Your task to perform on an android device: Find coffee shops on Maps Image 0: 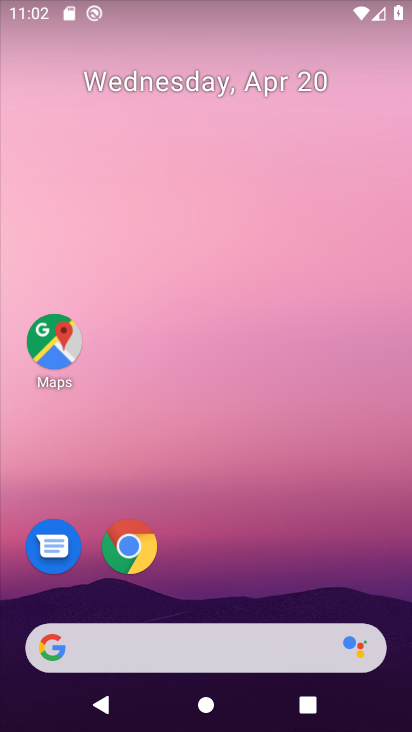
Step 0: drag from (158, 629) to (228, 188)
Your task to perform on an android device: Find coffee shops on Maps Image 1: 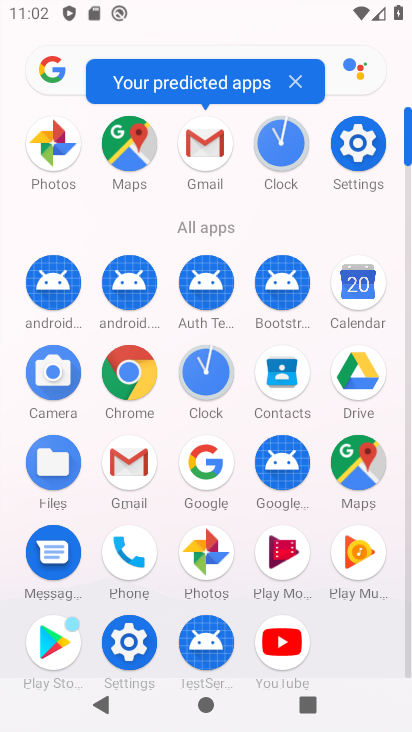
Step 1: click (356, 466)
Your task to perform on an android device: Find coffee shops on Maps Image 2: 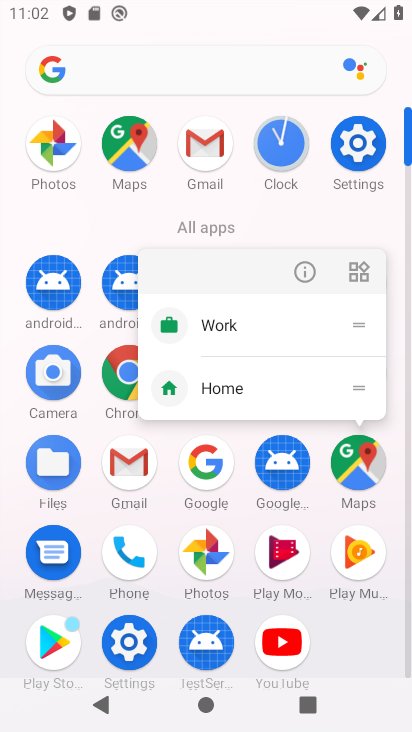
Step 2: click (356, 475)
Your task to perform on an android device: Find coffee shops on Maps Image 3: 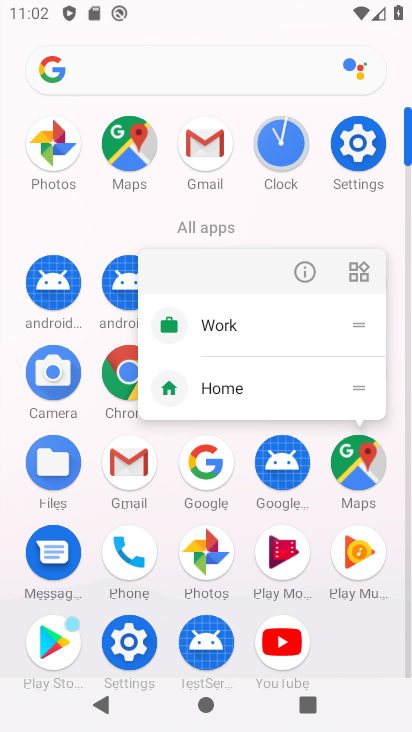
Step 3: click (356, 475)
Your task to perform on an android device: Find coffee shops on Maps Image 4: 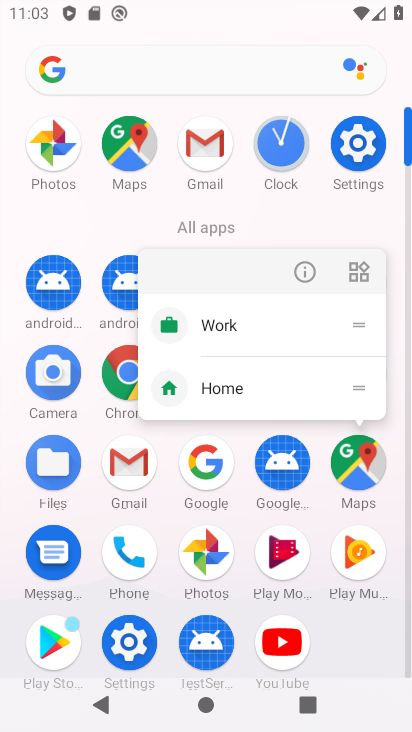
Step 4: click (356, 464)
Your task to perform on an android device: Find coffee shops on Maps Image 5: 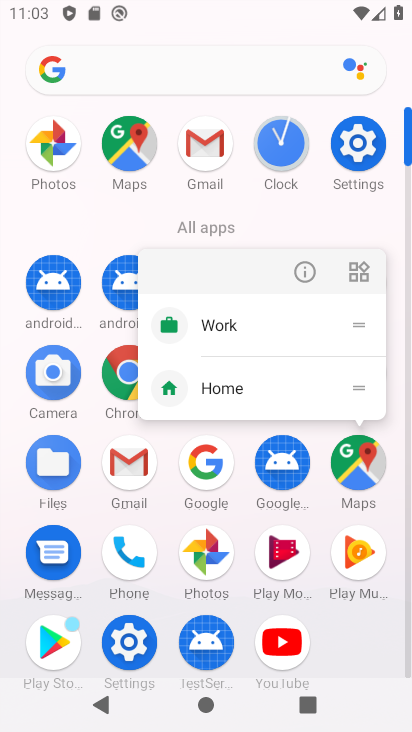
Step 5: click (358, 476)
Your task to perform on an android device: Find coffee shops on Maps Image 6: 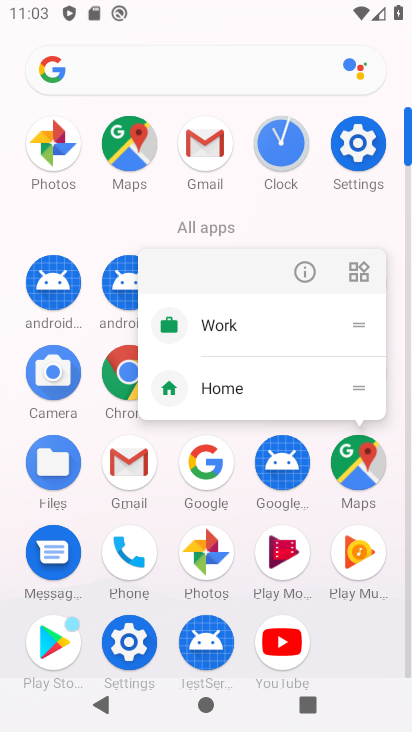
Step 6: click (357, 464)
Your task to perform on an android device: Find coffee shops on Maps Image 7: 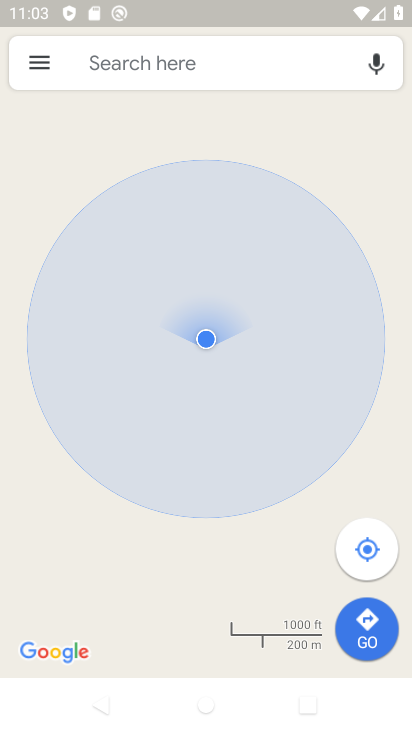
Step 7: click (148, 69)
Your task to perform on an android device: Find coffee shops on Maps Image 8: 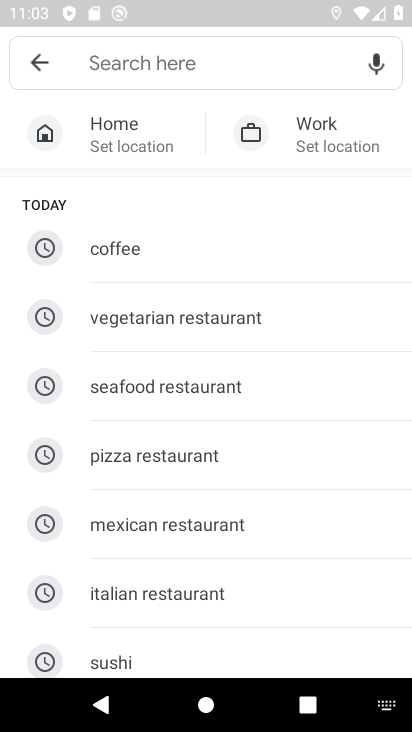
Step 8: click (126, 249)
Your task to perform on an android device: Find coffee shops on Maps Image 9: 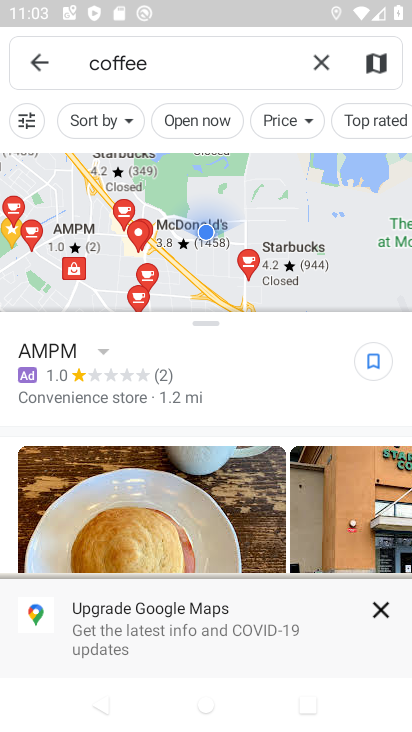
Step 9: click (387, 602)
Your task to perform on an android device: Find coffee shops on Maps Image 10: 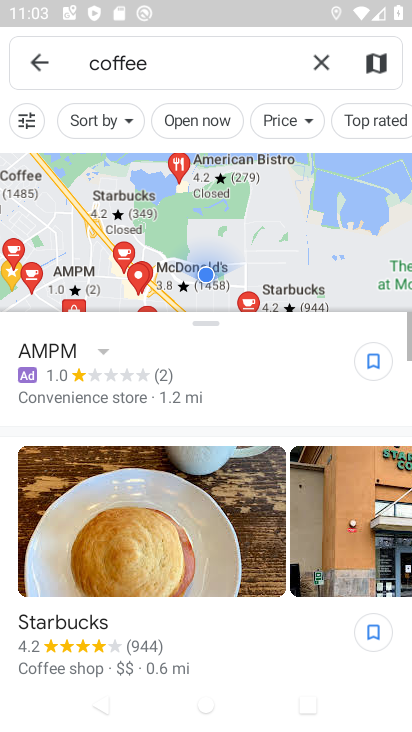
Step 10: task complete